Your task to perform on an android device: uninstall "Airtel Thanks" Image 0: 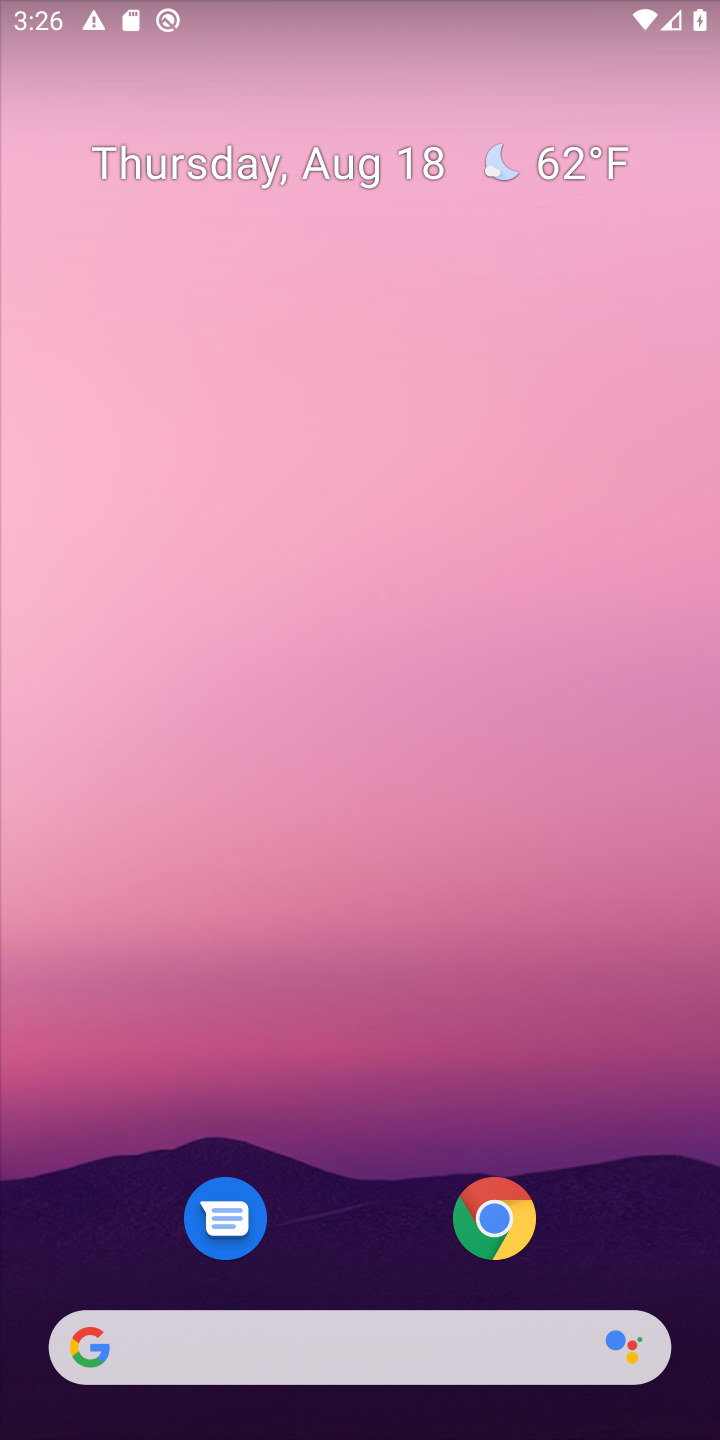
Step 0: drag from (339, 1045) to (342, 295)
Your task to perform on an android device: uninstall "Airtel Thanks" Image 1: 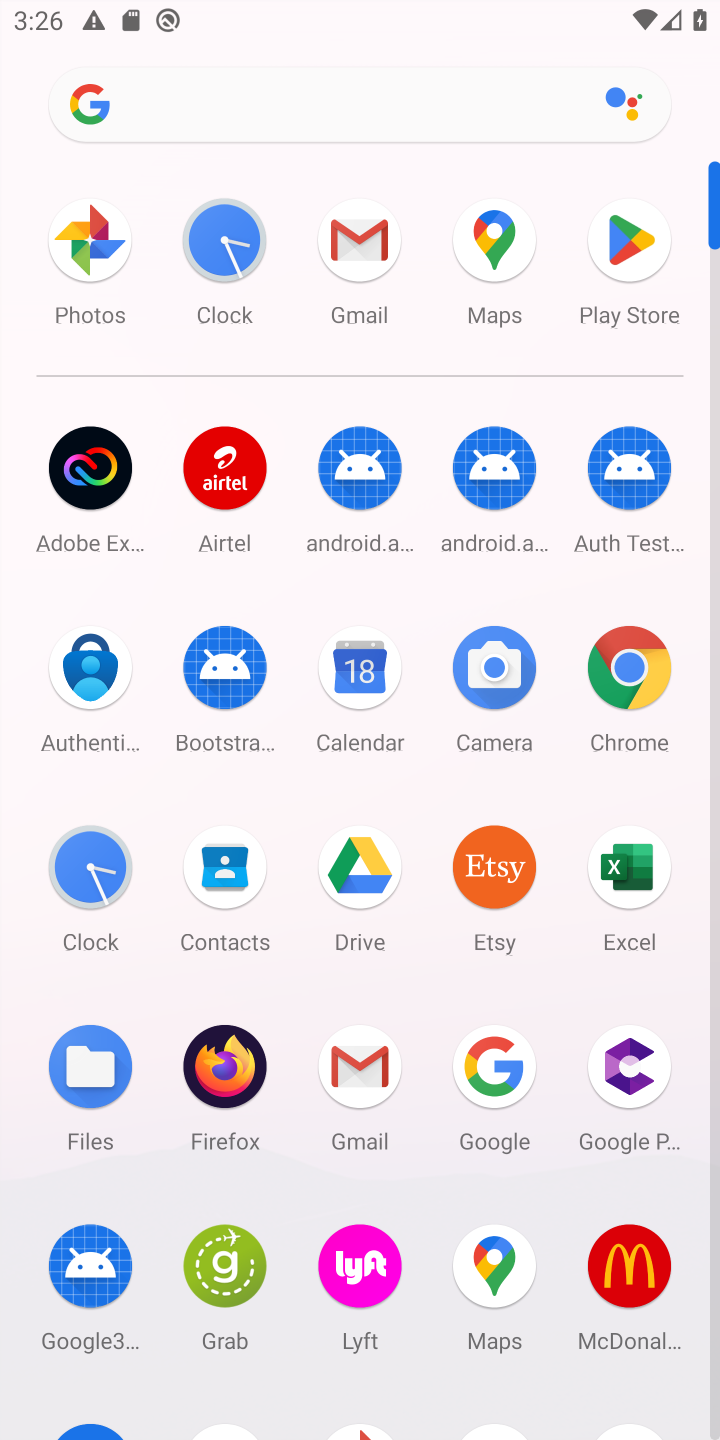
Step 1: click (621, 228)
Your task to perform on an android device: uninstall "Airtel Thanks" Image 2: 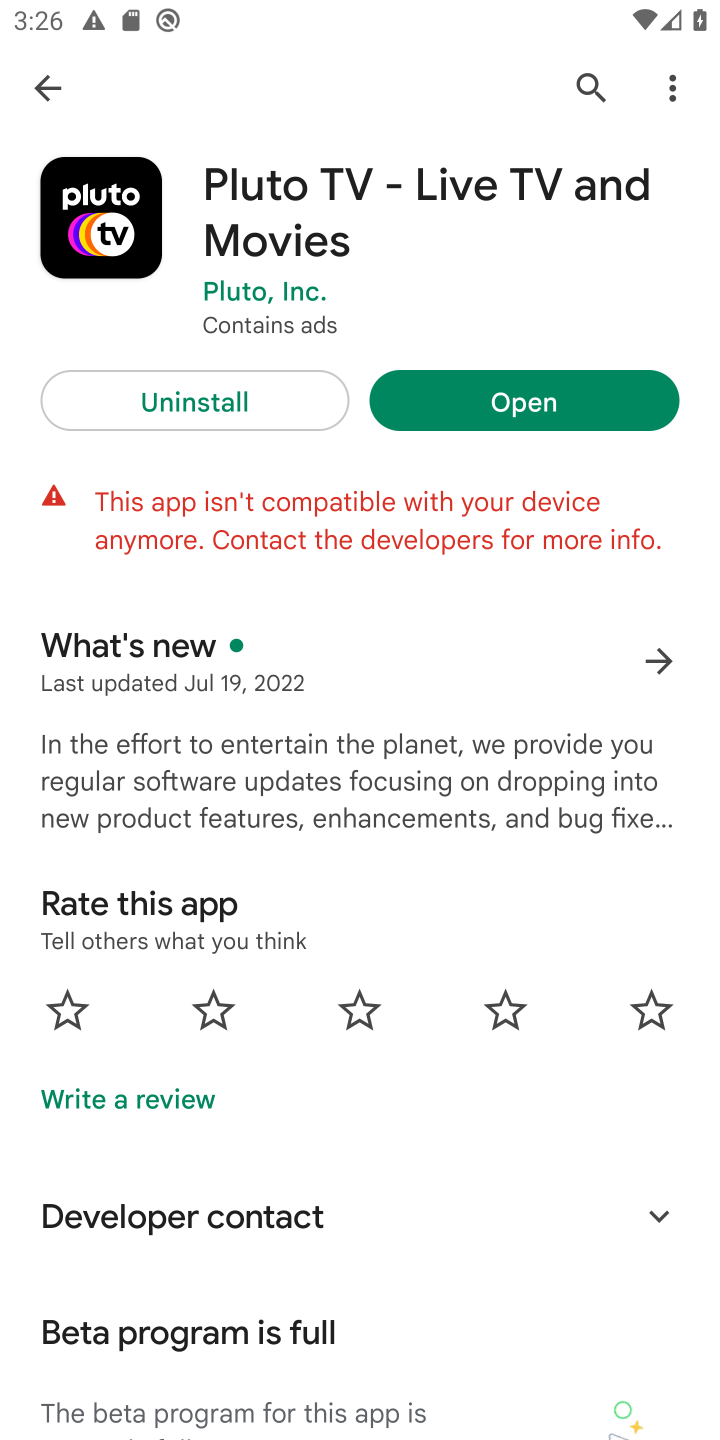
Step 2: click (598, 94)
Your task to perform on an android device: uninstall "Airtel Thanks" Image 3: 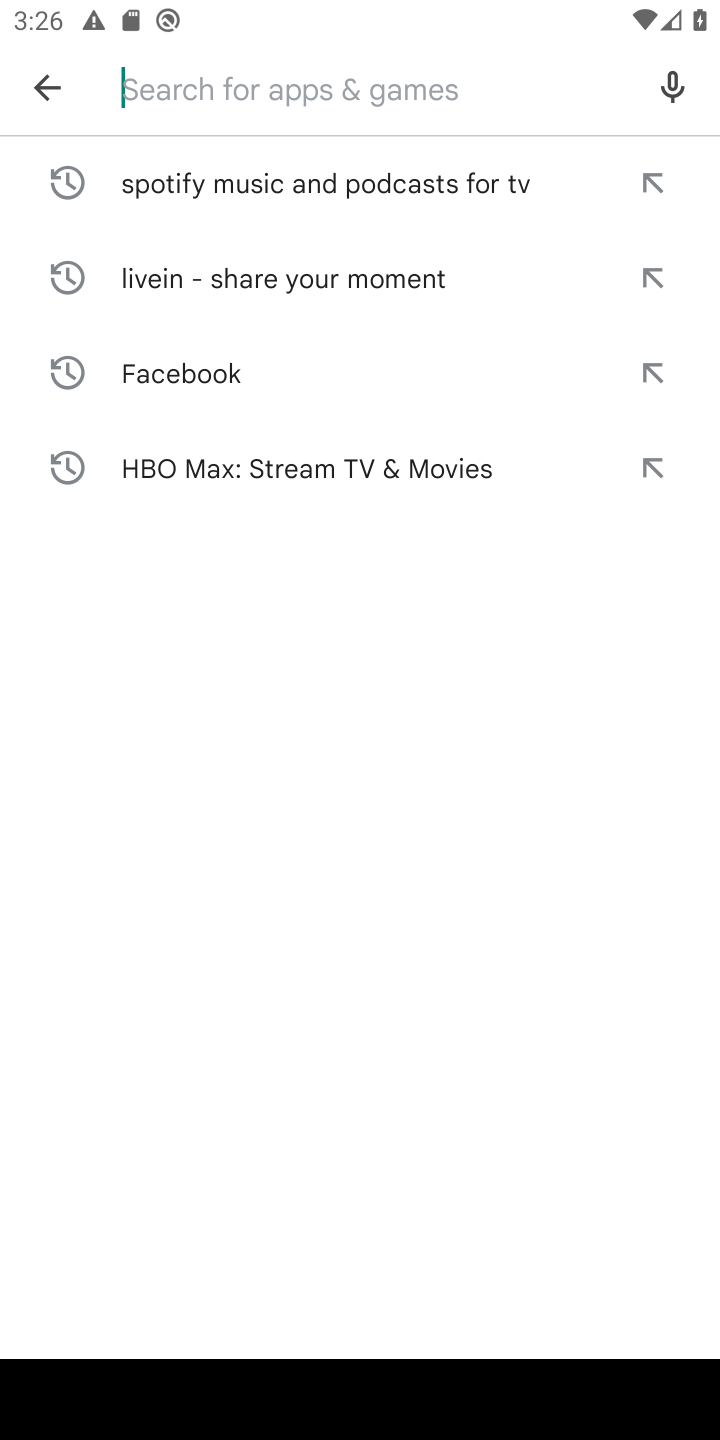
Step 3: click (183, 89)
Your task to perform on an android device: uninstall "Airtel Thanks" Image 4: 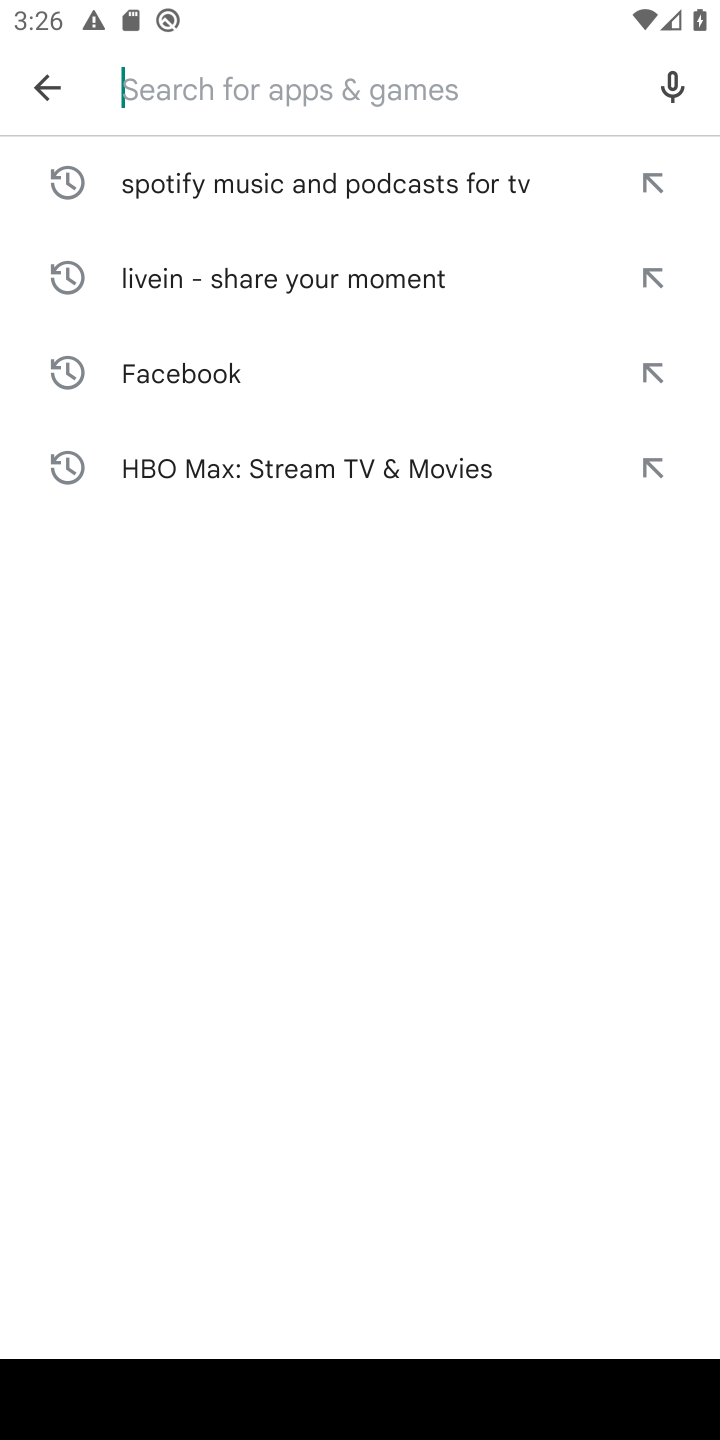
Step 4: type "Airtel Thanks"
Your task to perform on an android device: uninstall "Airtel Thanks" Image 5: 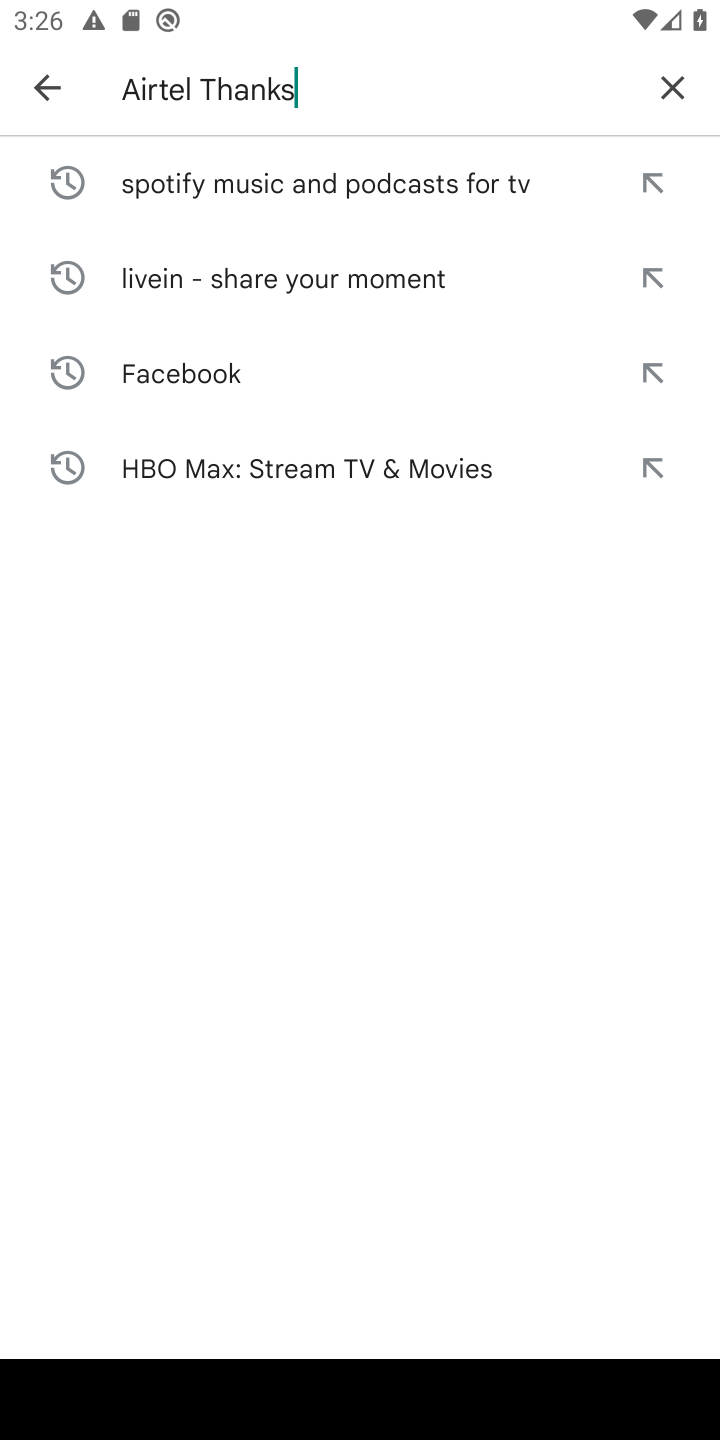
Step 5: type ""
Your task to perform on an android device: uninstall "Airtel Thanks" Image 6: 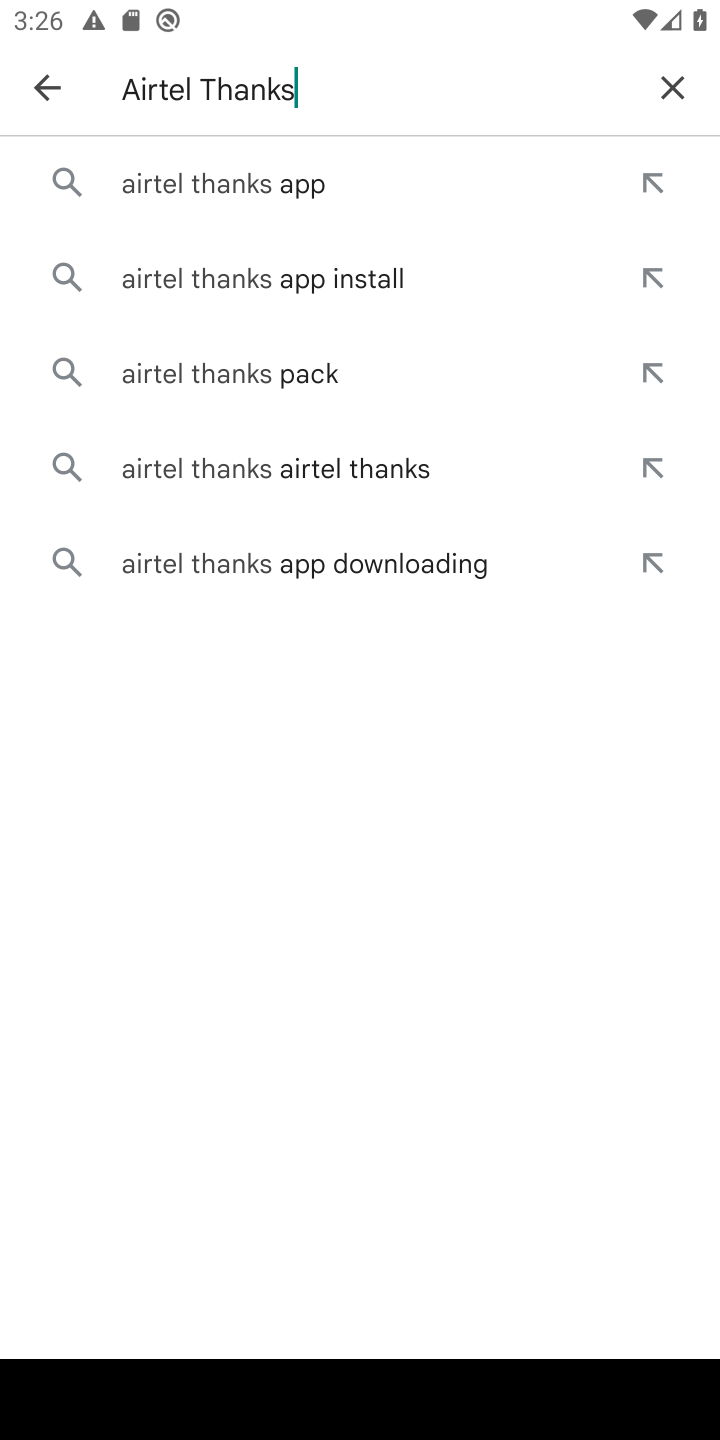
Step 6: click (231, 174)
Your task to perform on an android device: uninstall "Airtel Thanks" Image 7: 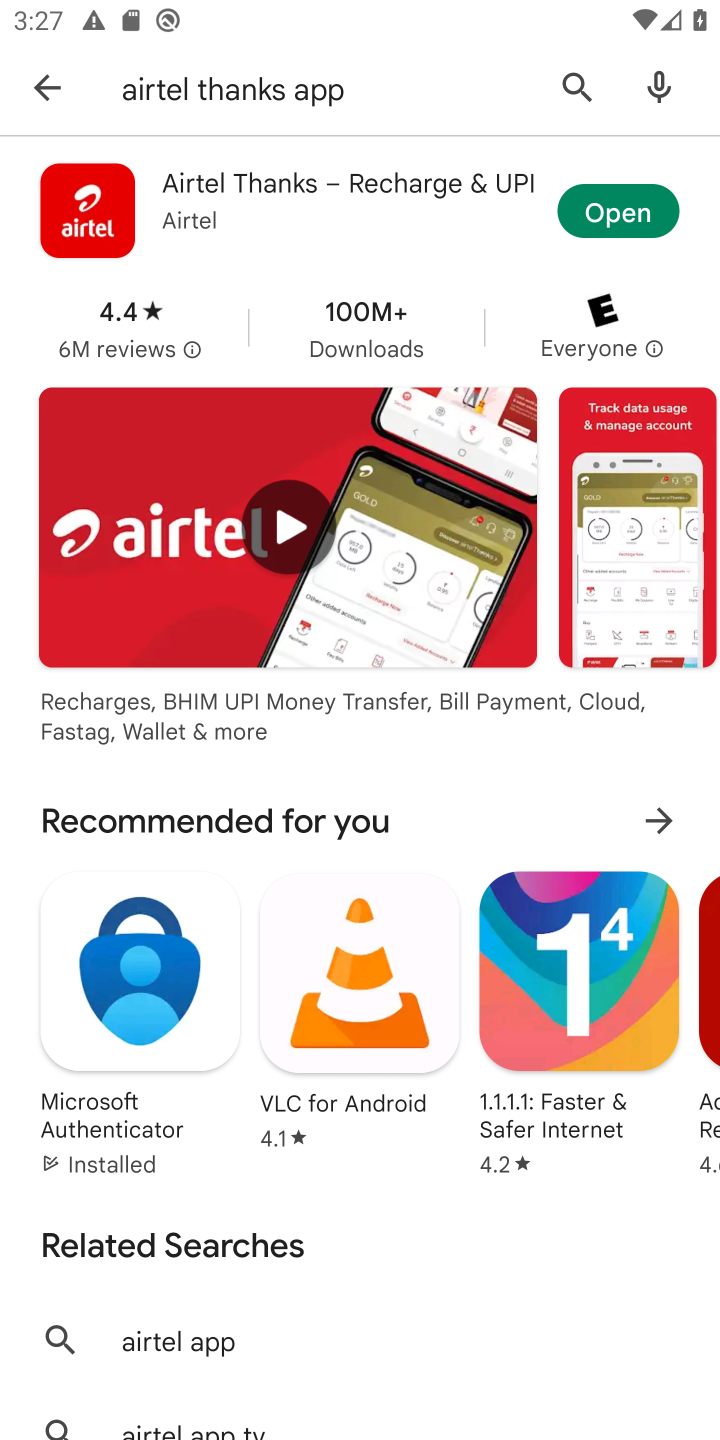
Step 7: click (445, 198)
Your task to perform on an android device: uninstall "Airtel Thanks" Image 8: 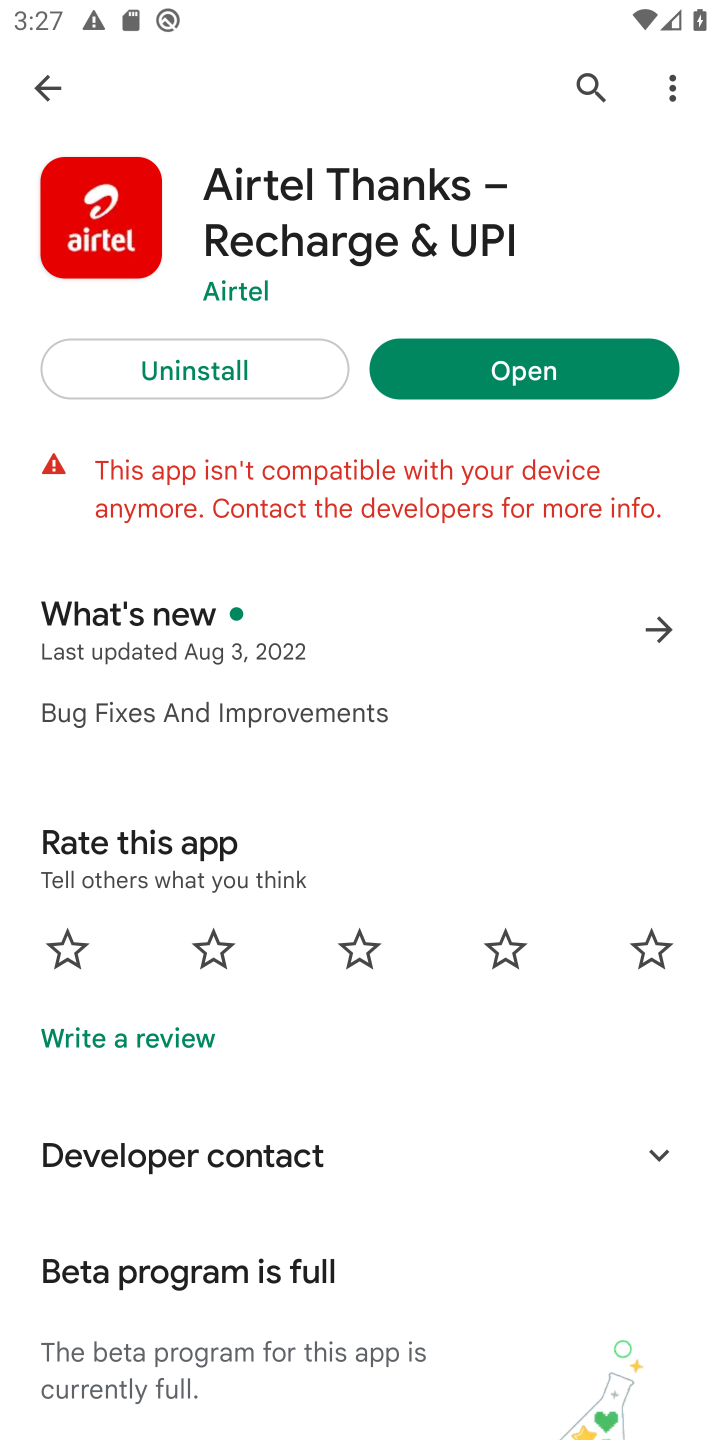
Step 8: click (270, 351)
Your task to perform on an android device: uninstall "Airtel Thanks" Image 9: 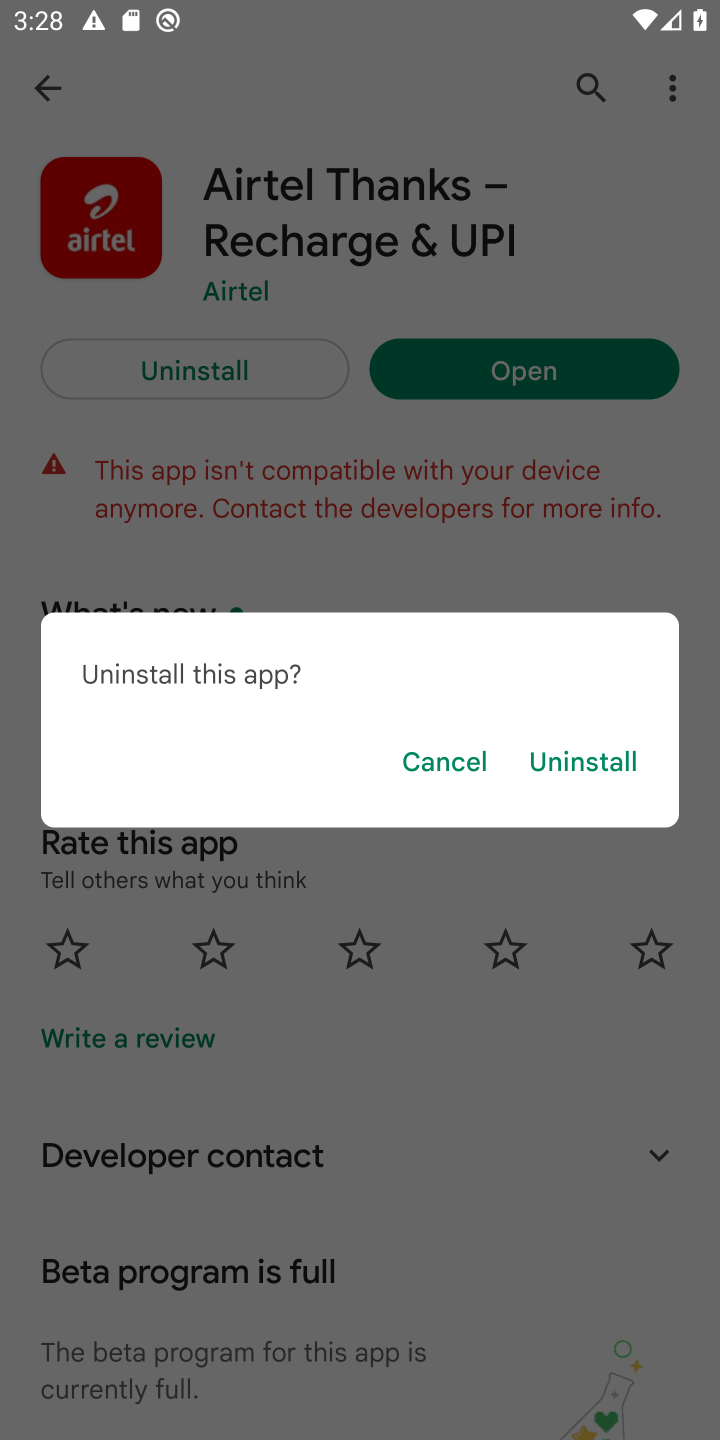
Step 9: click (581, 759)
Your task to perform on an android device: uninstall "Airtel Thanks" Image 10: 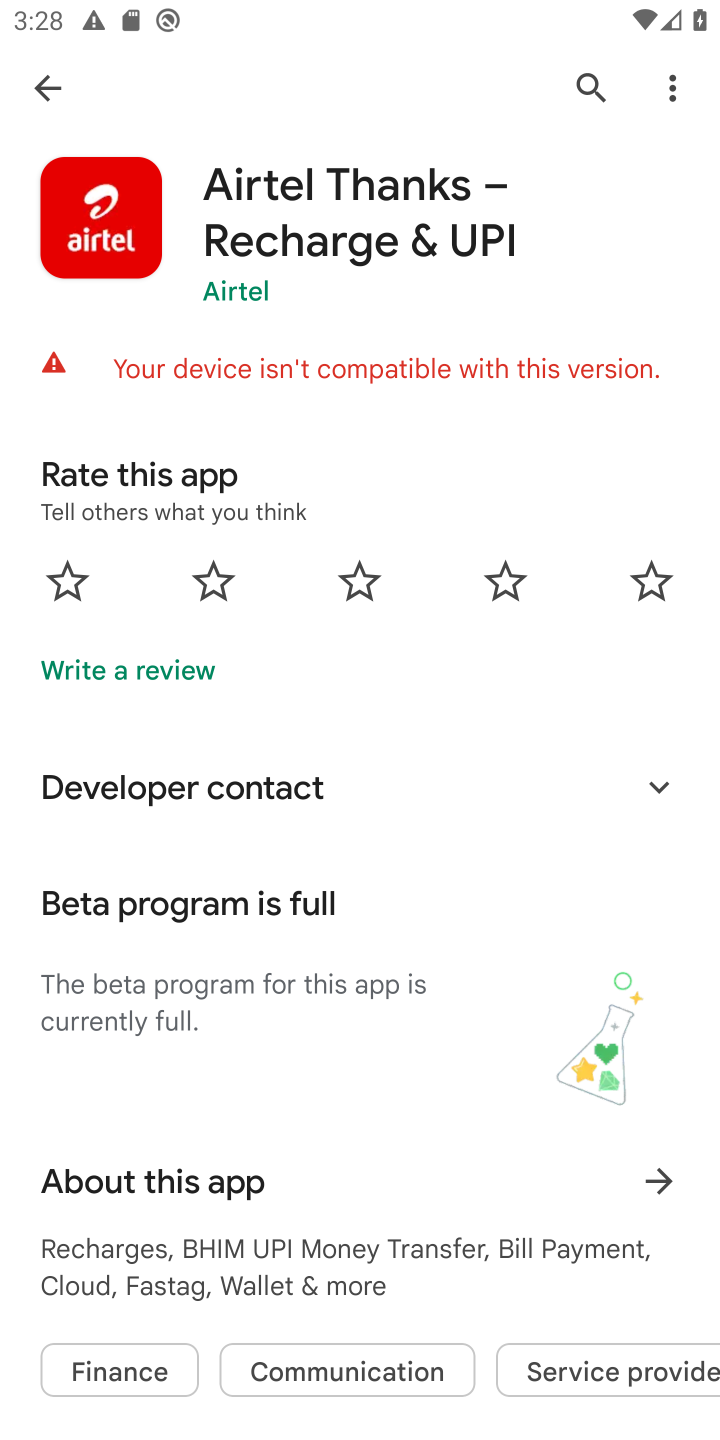
Step 10: task complete